Your task to perform on an android device: turn off location Image 0: 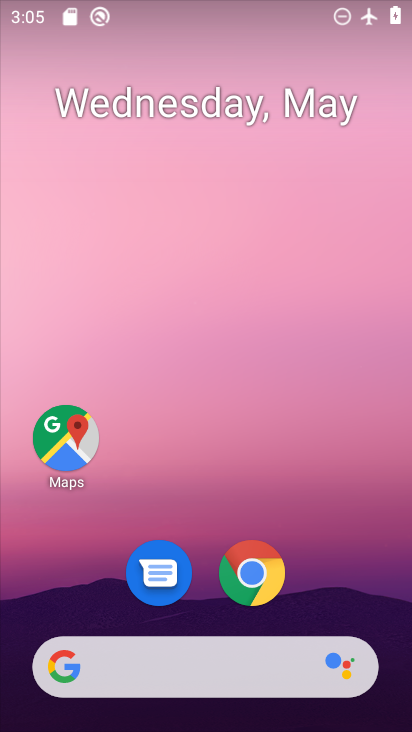
Step 0: drag from (322, 603) to (372, 82)
Your task to perform on an android device: turn off location Image 1: 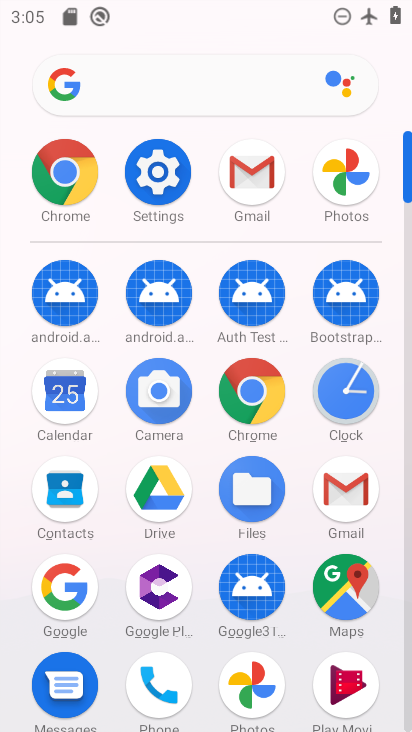
Step 1: click (161, 173)
Your task to perform on an android device: turn off location Image 2: 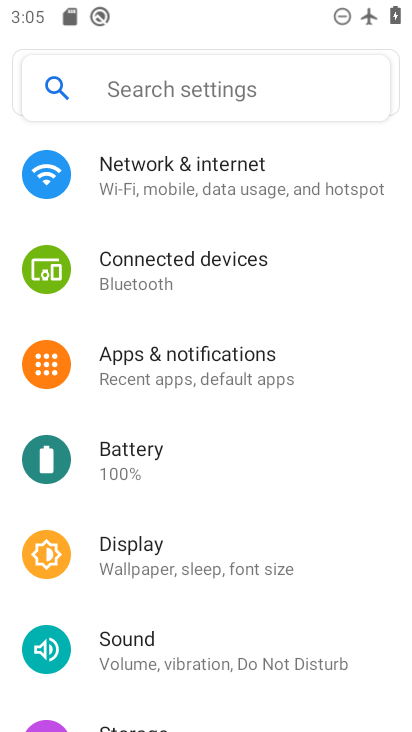
Step 2: drag from (174, 632) to (177, 330)
Your task to perform on an android device: turn off location Image 3: 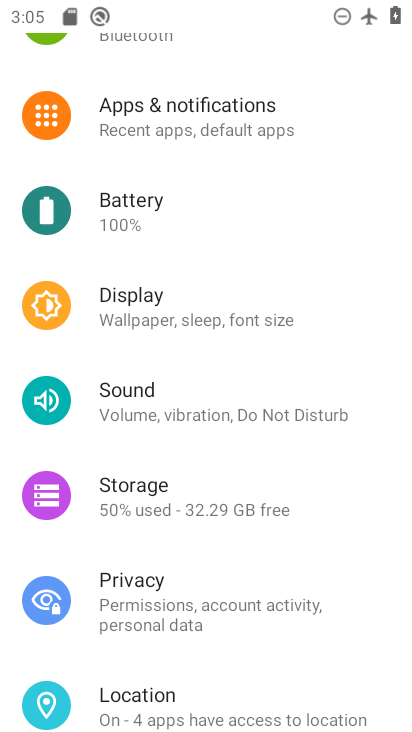
Step 3: click (159, 701)
Your task to perform on an android device: turn off location Image 4: 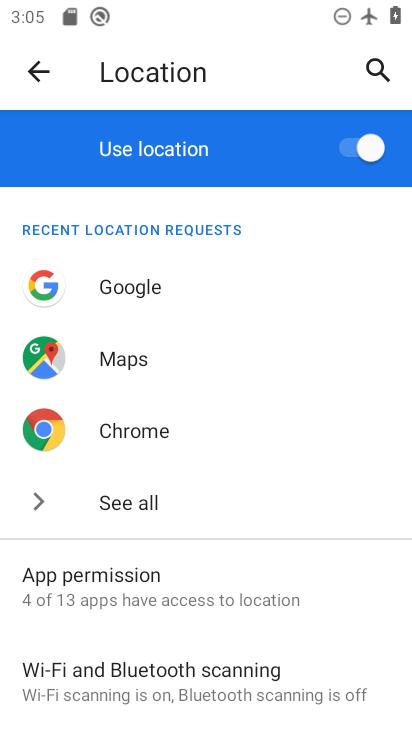
Step 4: task complete